Your task to perform on an android device: Check the news Image 0: 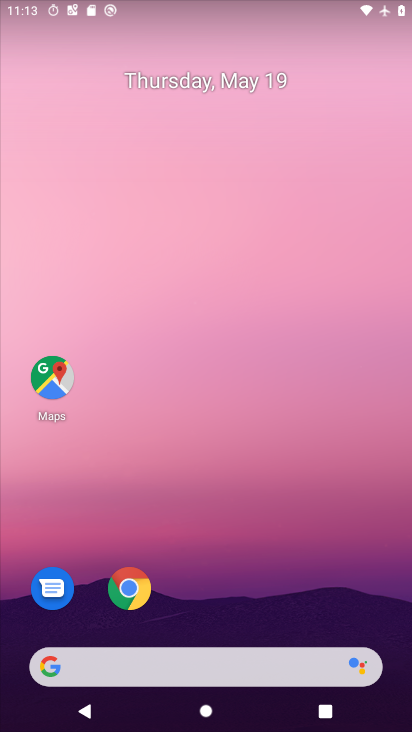
Step 0: press home button
Your task to perform on an android device: Check the news Image 1: 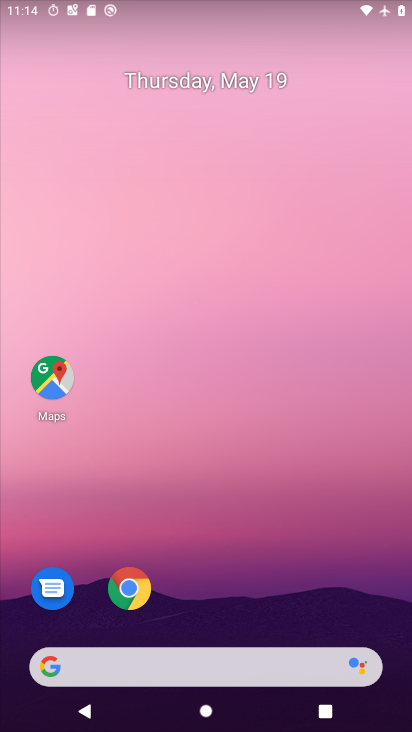
Step 1: click (54, 666)
Your task to perform on an android device: Check the news Image 2: 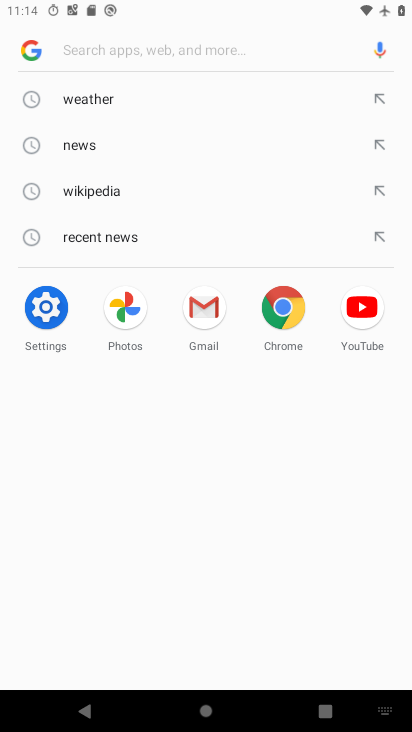
Step 2: click (85, 147)
Your task to perform on an android device: Check the news Image 3: 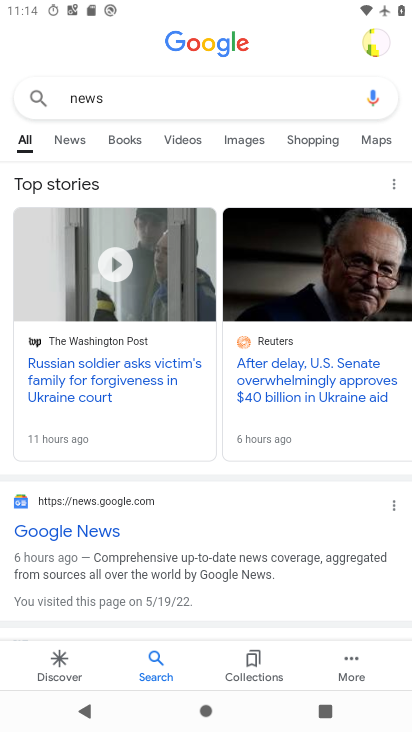
Step 3: click (79, 140)
Your task to perform on an android device: Check the news Image 4: 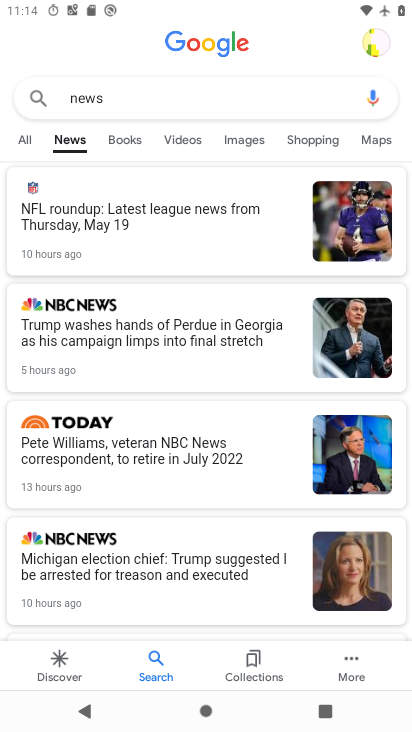
Step 4: task complete